Your task to perform on an android device: change timer sound Image 0: 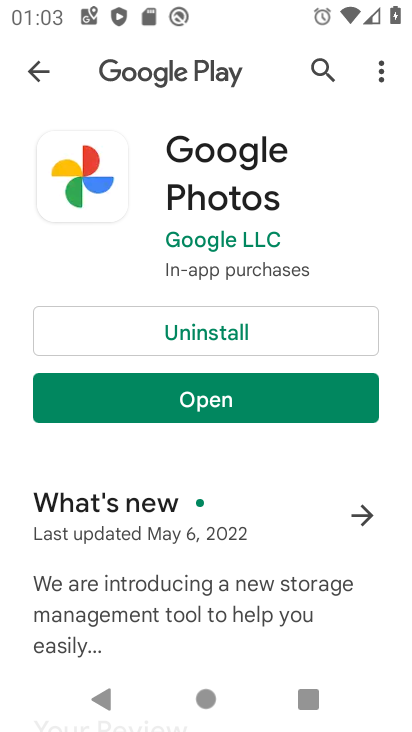
Step 0: press home button
Your task to perform on an android device: change timer sound Image 1: 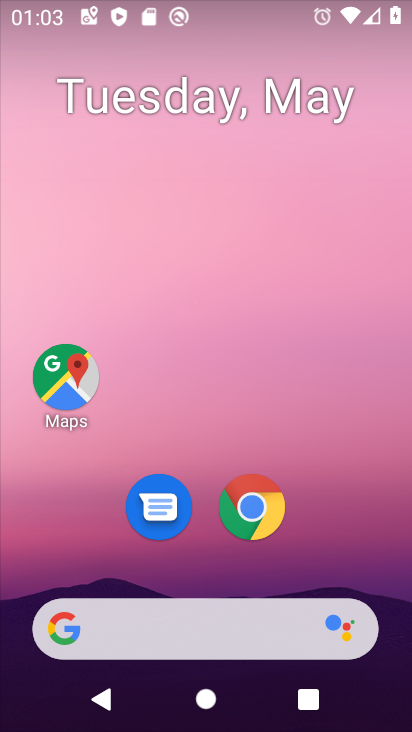
Step 1: drag from (161, 596) to (178, 281)
Your task to perform on an android device: change timer sound Image 2: 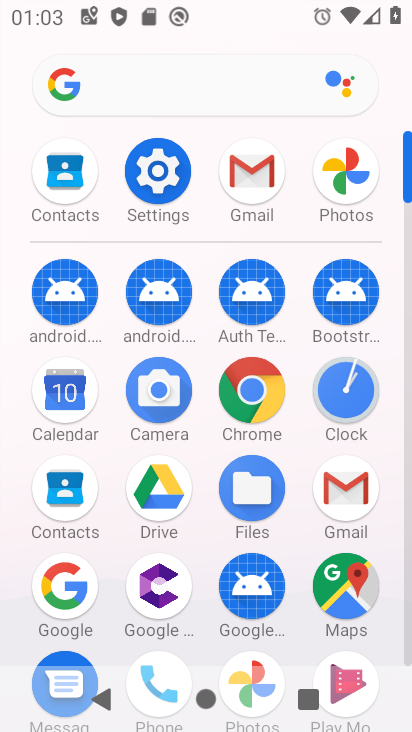
Step 2: click (338, 414)
Your task to perform on an android device: change timer sound Image 3: 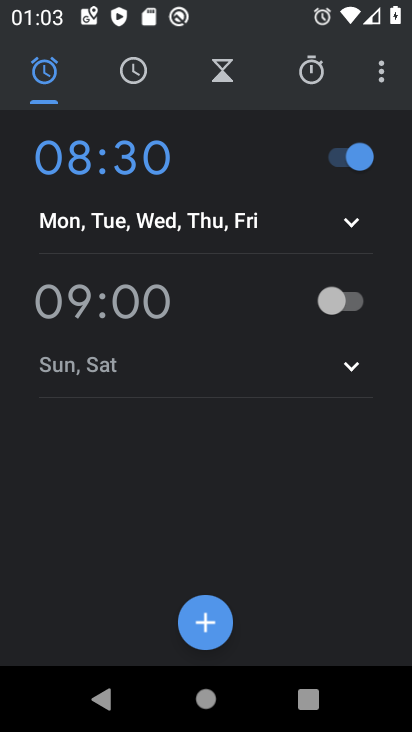
Step 3: click (379, 66)
Your task to perform on an android device: change timer sound Image 4: 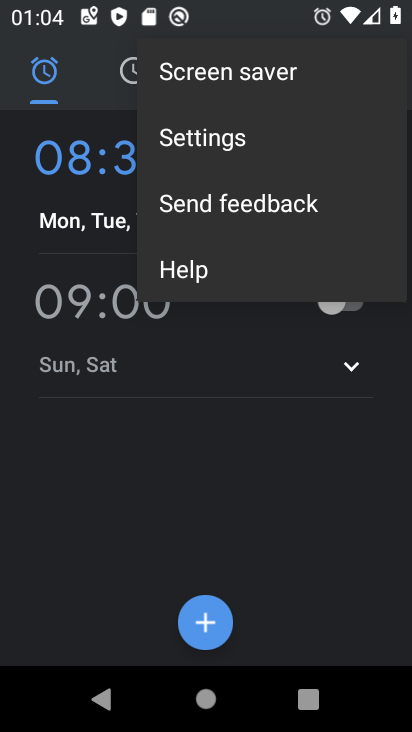
Step 4: click (191, 142)
Your task to perform on an android device: change timer sound Image 5: 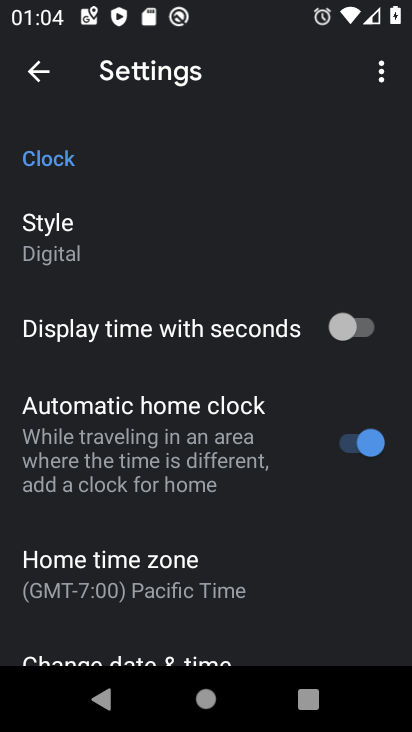
Step 5: drag from (238, 513) to (238, 229)
Your task to perform on an android device: change timer sound Image 6: 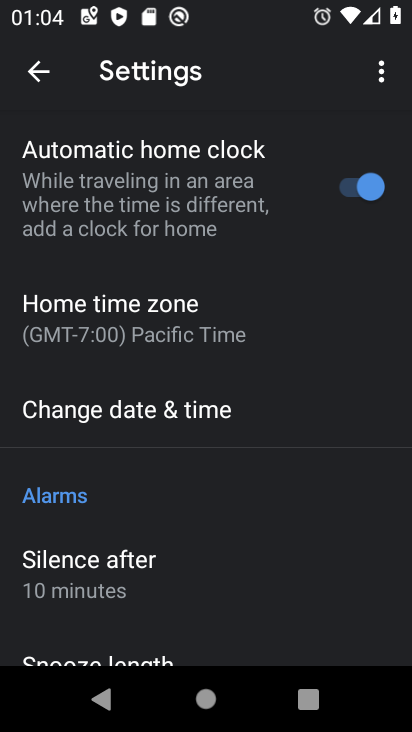
Step 6: drag from (195, 489) to (195, 249)
Your task to perform on an android device: change timer sound Image 7: 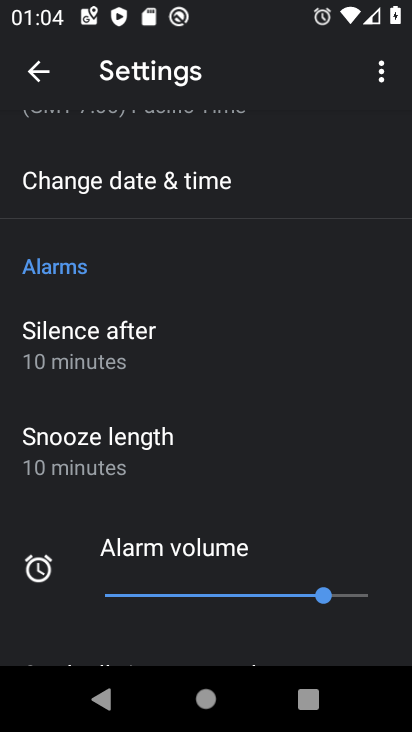
Step 7: drag from (206, 565) to (171, 145)
Your task to perform on an android device: change timer sound Image 8: 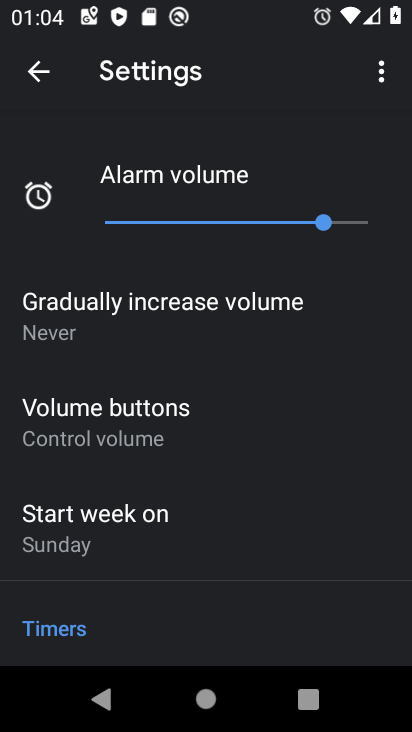
Step 8: drag from (135, 597) to (140, 254)
Your task to perform on an android device: change timer sound Image 9: 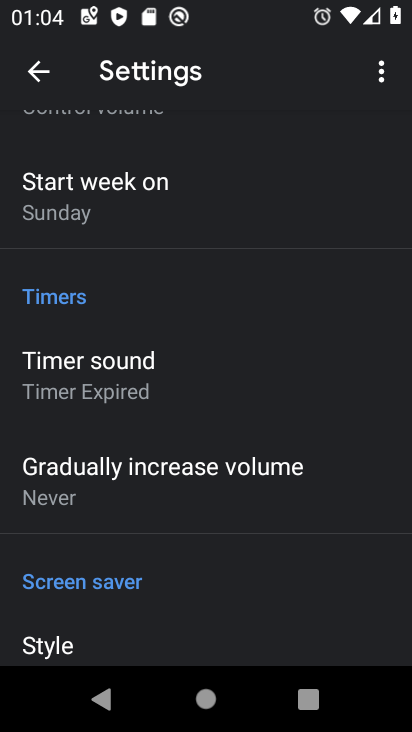
Step 9: click (70, 390)
Your task to perform on an android device: change timer sound Image 10: 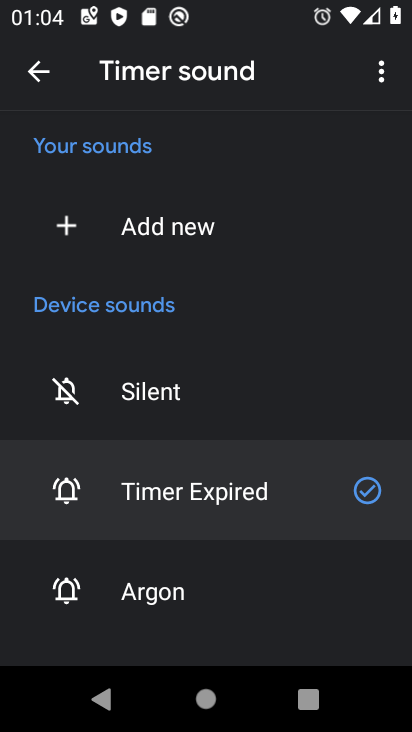
Step 10: click (139, 576)
Your task to perform on an android device: change timer sound Image 11: 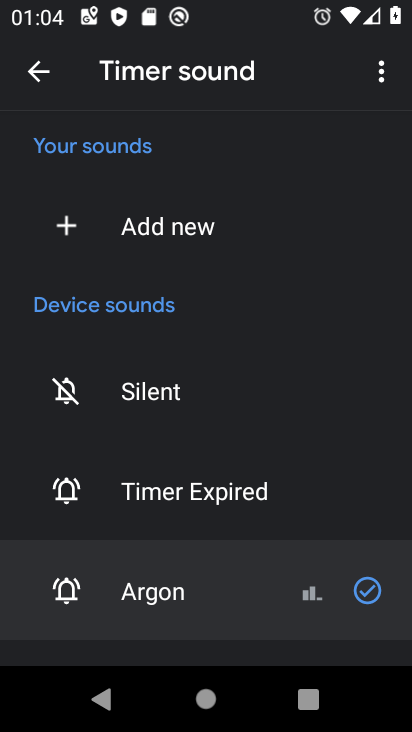
Step 11: task complete